Your task to perform on an android device: turn off notifications settings in the gmail app Image 0: 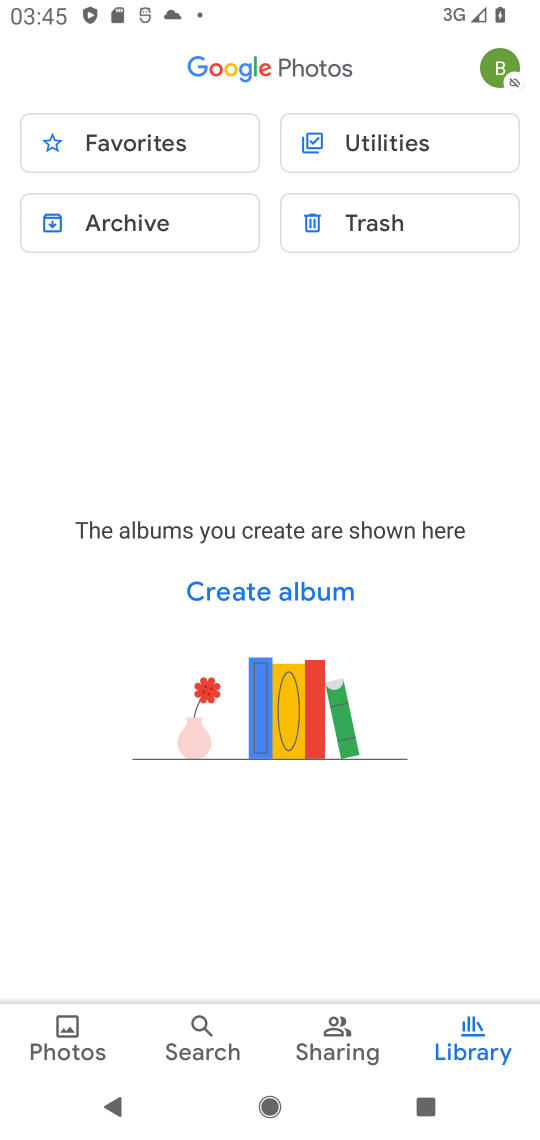
Step 0: press home button
Your task to perform on an android device: turn off notifications settings in the gmail app Image 1: 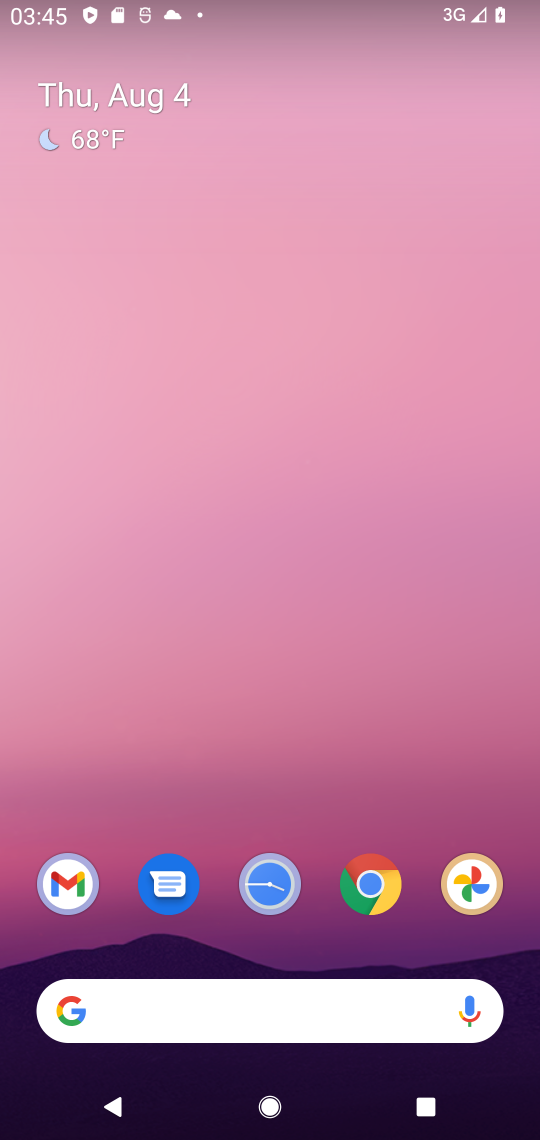
Step 1: drag from (306, 952) to (343, 344)
Your task to perform on an android device: turn off notifications settings in the gmail app Image 2: 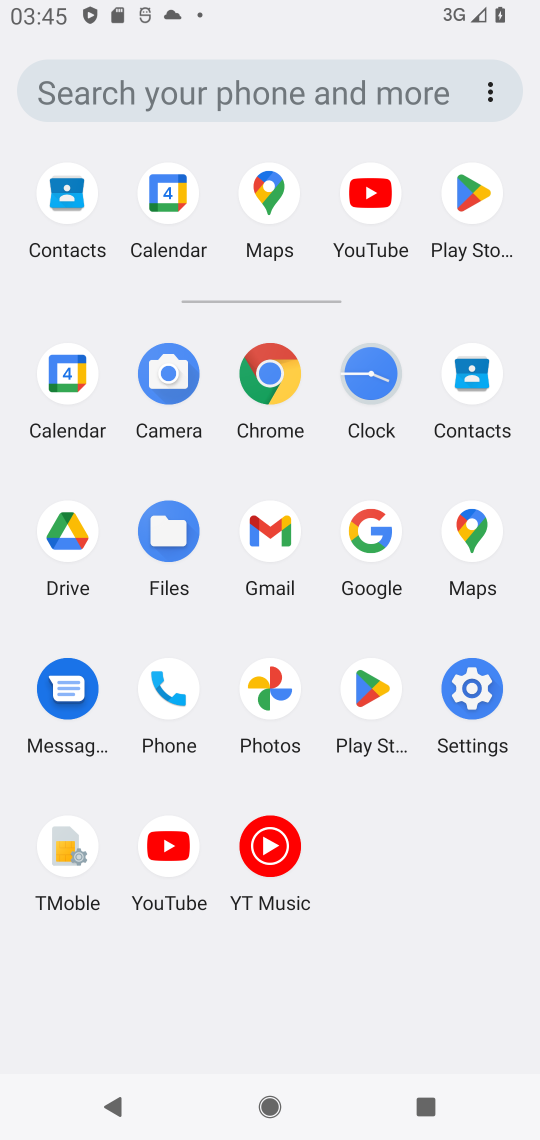
Step 2: click (274, 530)
Your task to perform on an android device: turn off notifications settings in the gmail app Image 3: 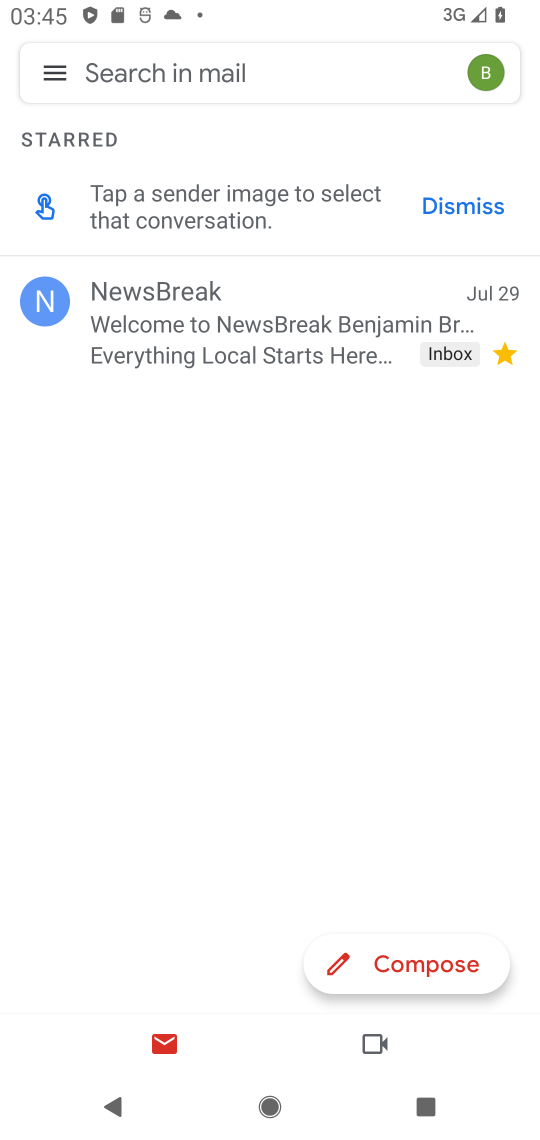
Step 3: click (58, 65)
Your task to perform on an android device: turn off notifications settings in the gmail app Image 4: 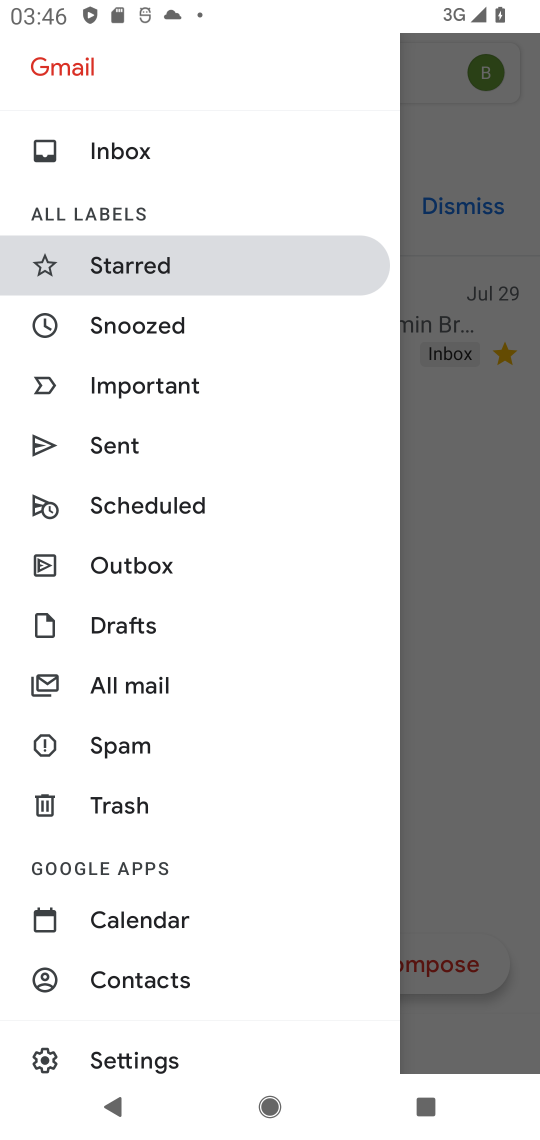
Step 4: click (167, 1066)
Your task to perform on an android device: turn off notifications settings in the gmail app Image 5: 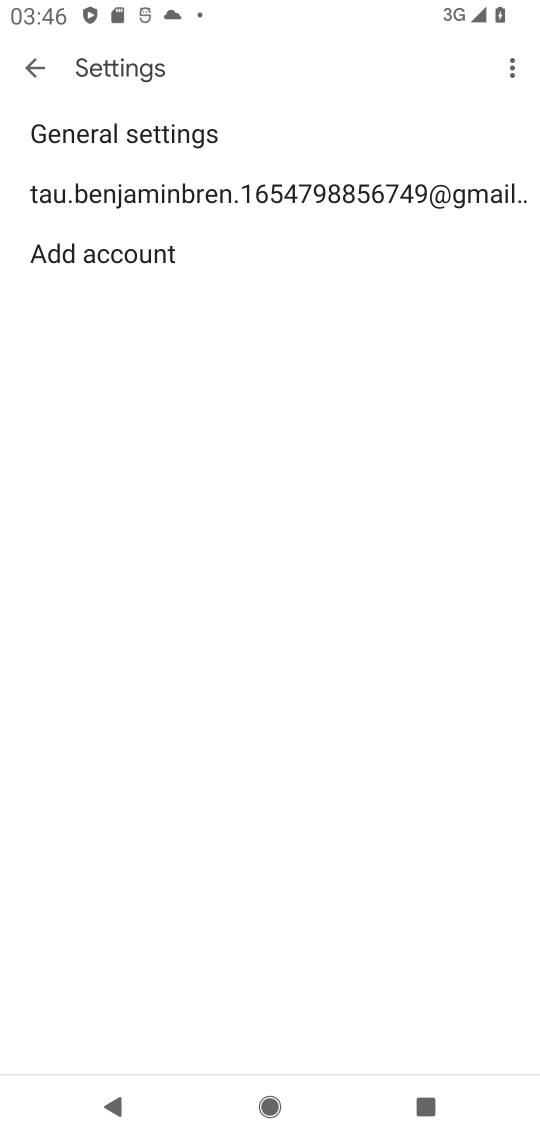
Step 5: click (243, 189)
Your task to perform on an android device: turn off notifications settings in the gmail app Image 6: 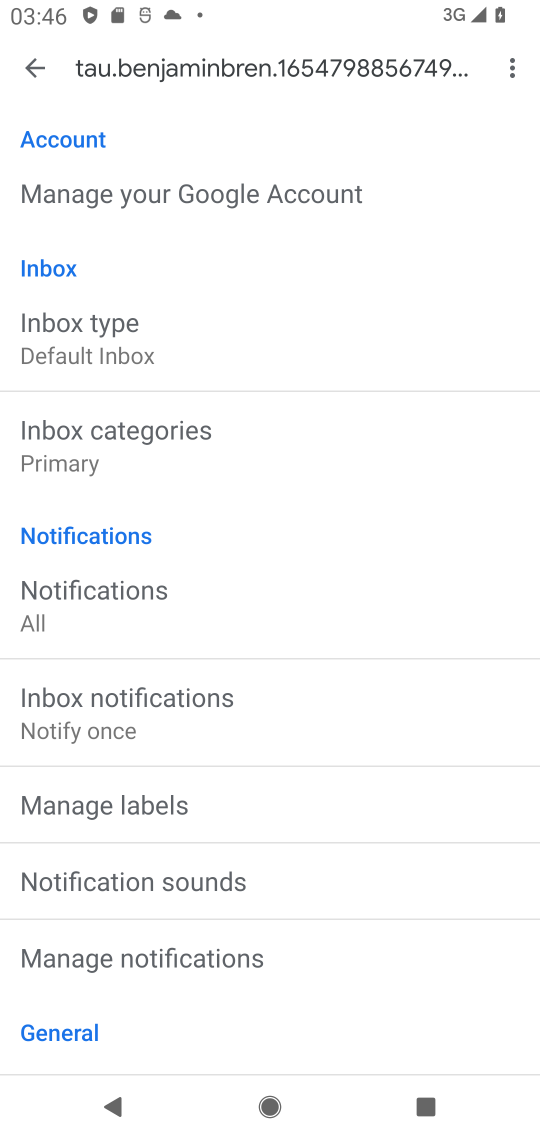
Step 6: click (258, 961)
Your task to perform on an android device: turn off notifications settings in the gmail app Image 7: 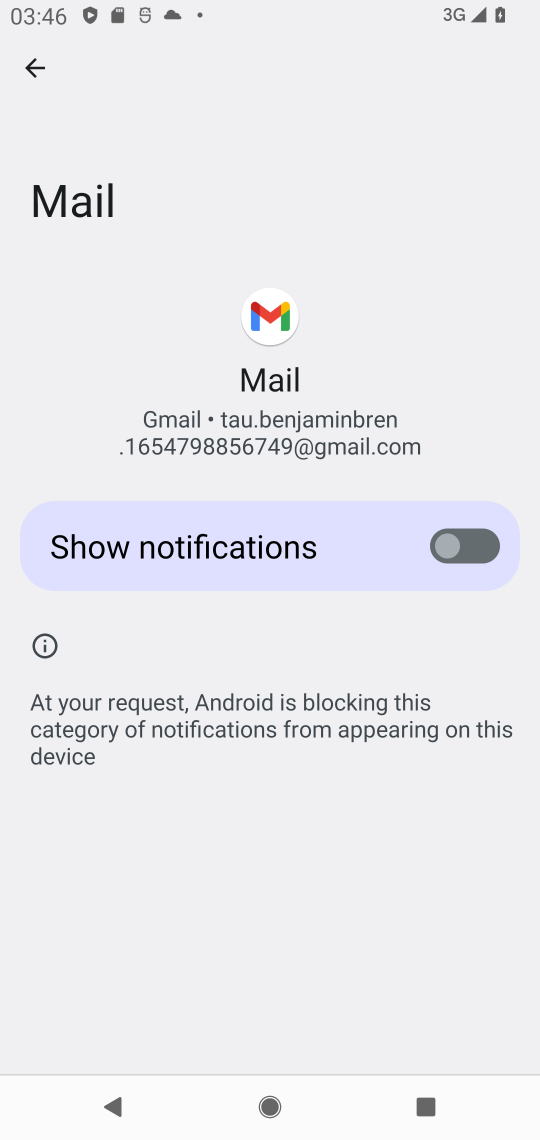
Step 7: task complete